Your task to perform on an android device: Check the weather Image 0: 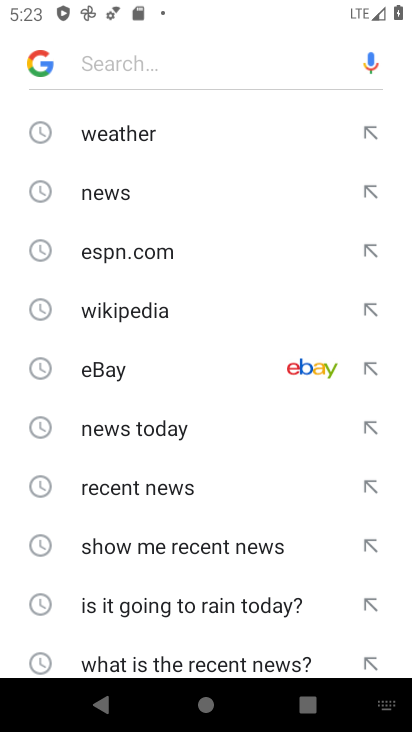
Step 0: press back button
Your task to perform on an android device: Check the weather Image 1: 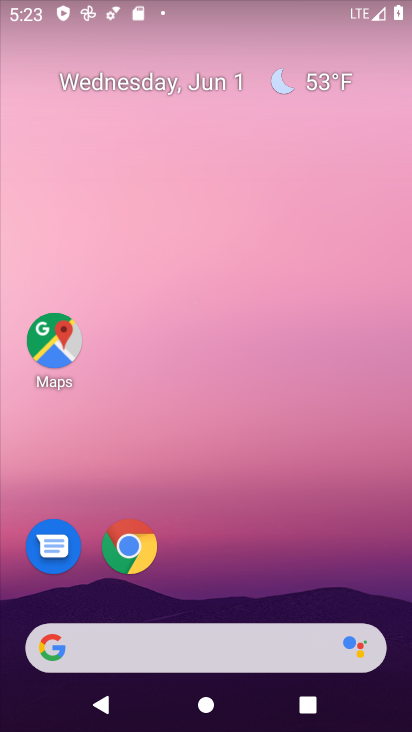
Step 1: drag from (309, 558) to (207, 49)
Your task to perform on an android device: Check the weather Image 2: 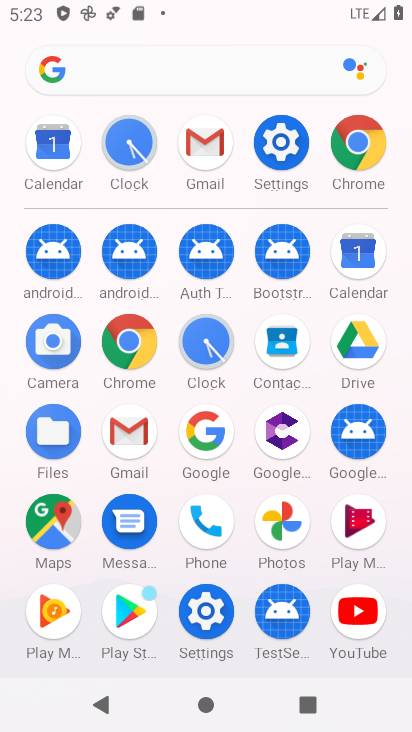
Step 2: click (129, 338)
Your task to perform on an android device: Check the weather Image 3: 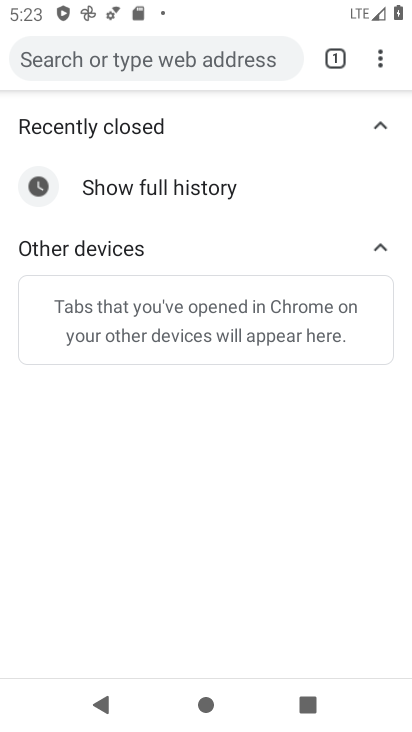
Step 3: click (169, 59)
Your task to perform on an android device: Check the weather Image 4: 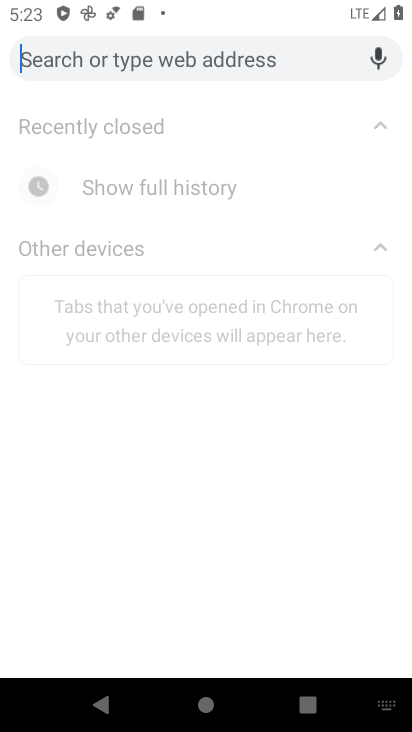
Step 4: type "Check the weather"
Your task to perform on an android device: Check the weather Image 5: 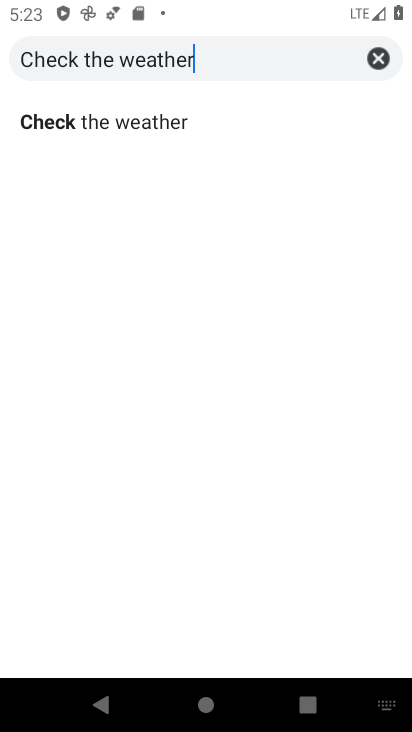
Step 5: type ""
Your task to perform on an android device: Check the weather Image 6: 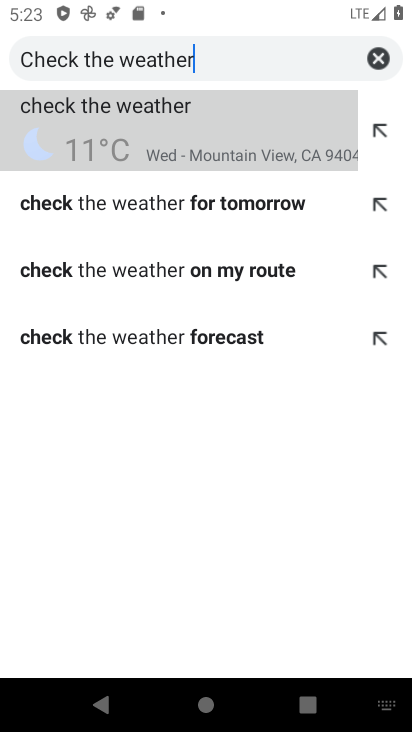
Step 6: click (164, 140)
Your task to perform on an android device: Check the weather Image 7: 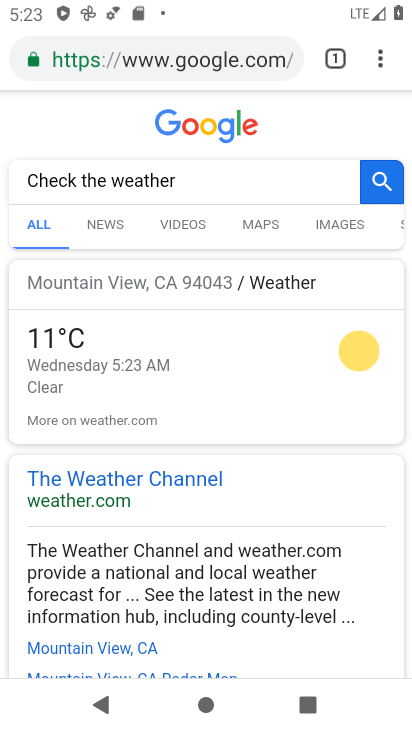
Step 7: task complete